Your task to perform on an android device: open the mobile data screen to see how much data has been used Image 0: 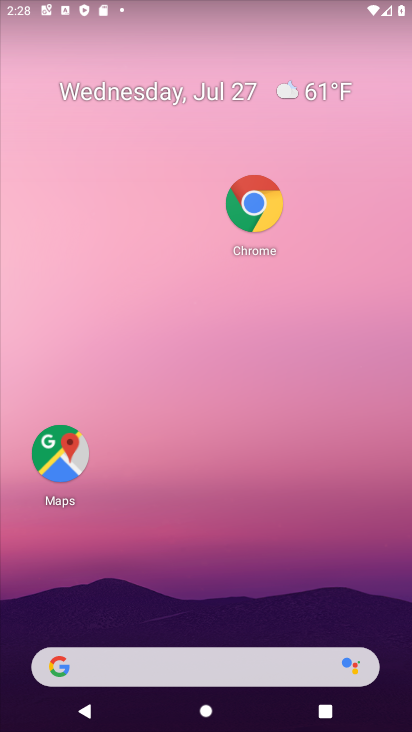
Step 0: drag from (188, 595) to (207, 178)
Your task to perform on an android device: open the mobile data screen to see how much data has been used Image 1: 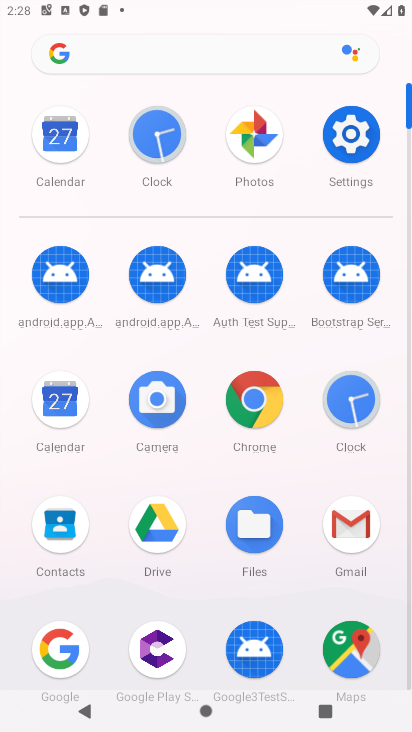
Step 1: click (335, 160)
Your task to perform on an android device: open the mobile data screen to see how much data has been used Image 2: 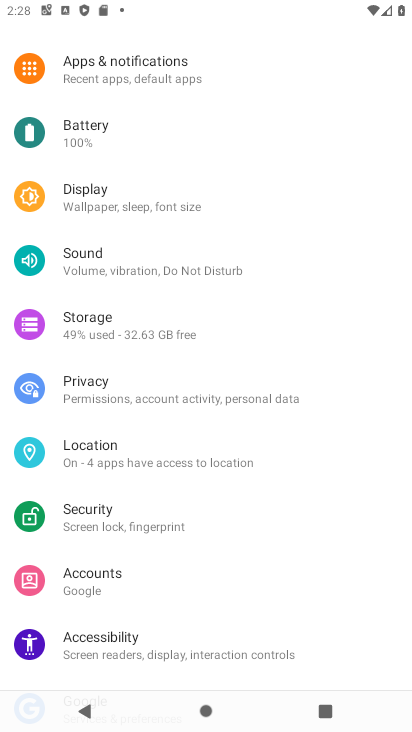
Step 2: drag from (130, 112) to (165, 450)
Your task to perform on an android device: open the mobile data screen to see how much data has been used Image 3: 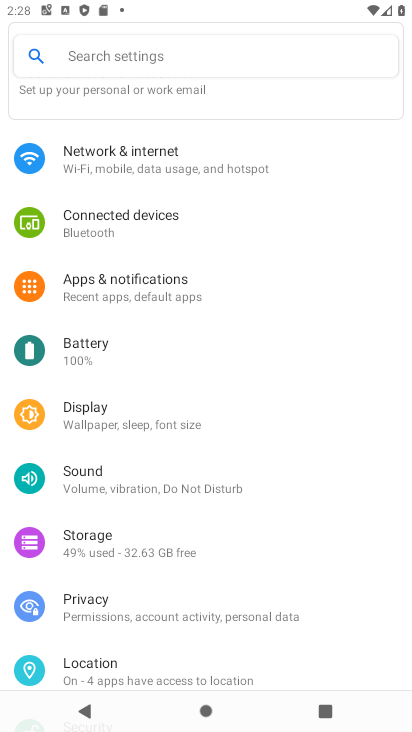
Step 3: click (156, 151)
Your task to perform on an android device: open the mobile data screen to see how much data has been used Image 4: 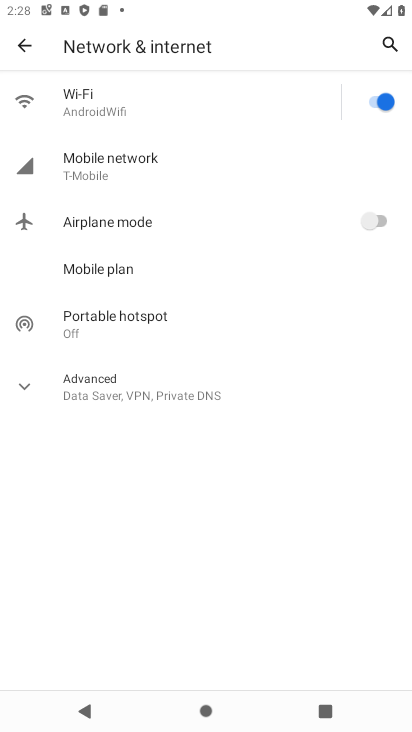
Step 4: click (133, 159)
Your task to perform on an android device: open the mobile data screen to see how much data has been used Image 5: 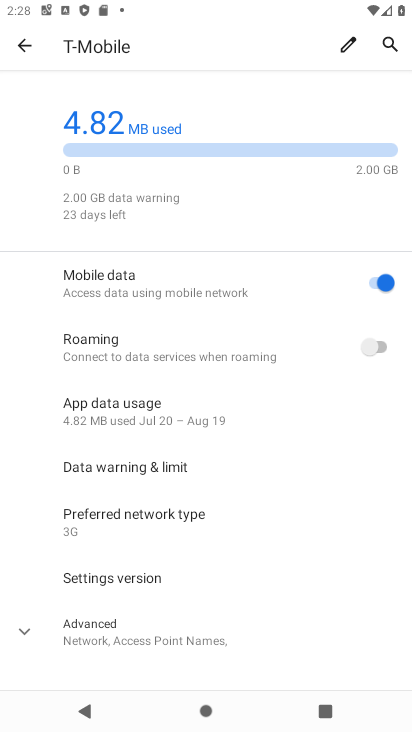
Step 5: click (192, 412)
Your task to perform on an android device: open the mobile data screen to see how much data has been used Image 6: 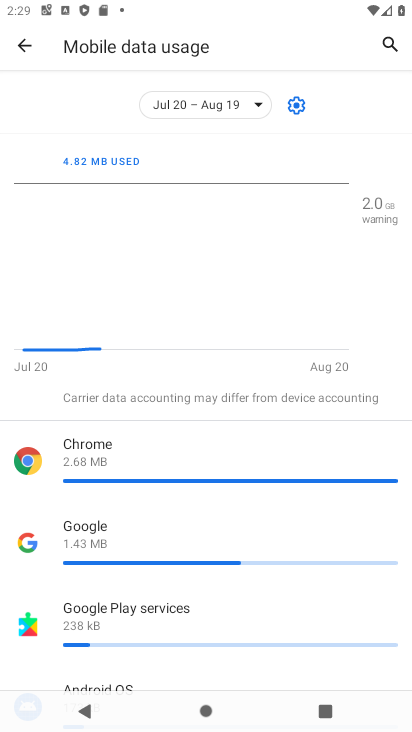
Step 6: task complete